Your task to perform on an android device: delete browsing data in the chrome app Image 0: 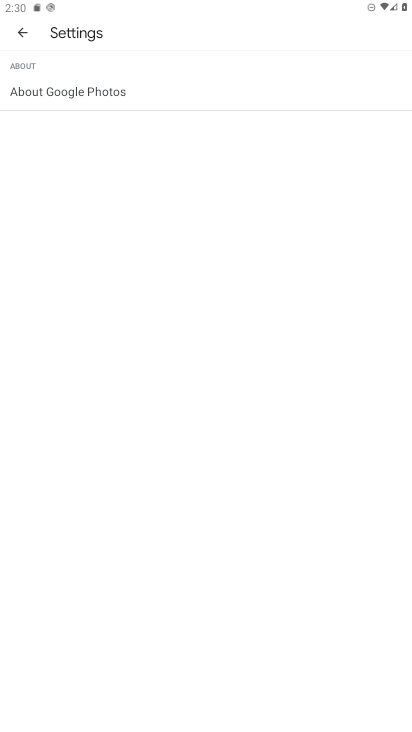
Step 0: press home button
Your task to perform on an android device: delete browsing data in the chrome app Image 1: 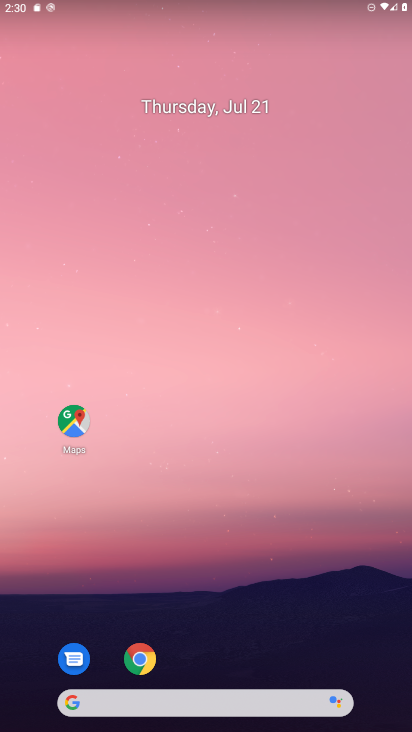
Step 1: click (135, 661)
Your task to perform on an android device: delete browsing data in the chrome app Image 2: 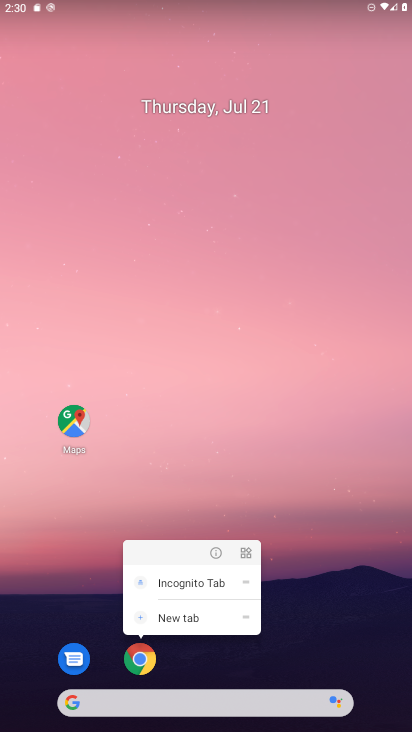
Step 2: click (133, 655)
Your task to perform on an android device: delete browsing data in the chrome app Image 3: 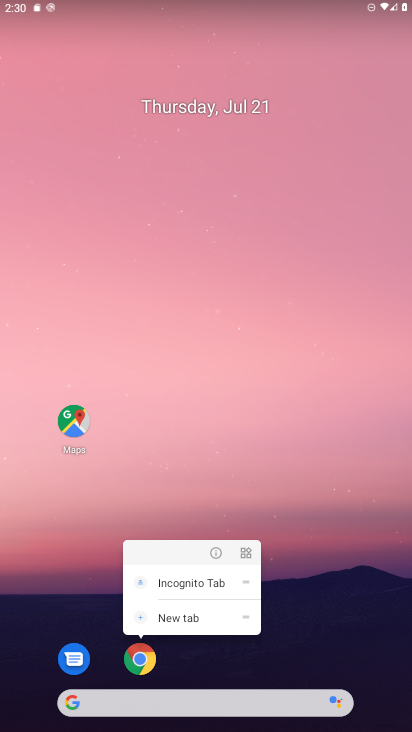
Step 3: click (133, 654)
Your task to perform on an android device: delete browsing data in the chrome app Image 4: 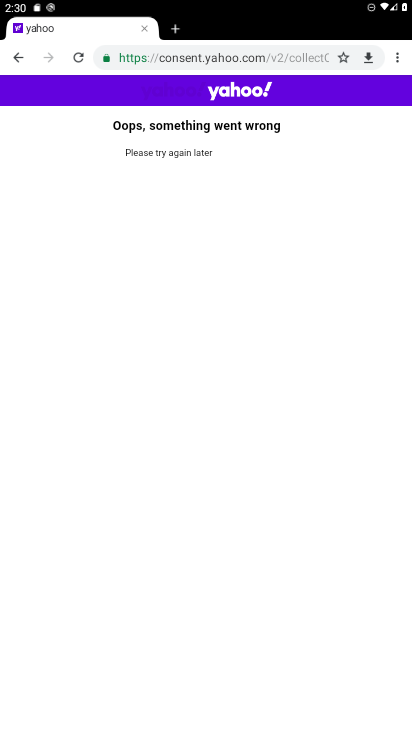
Step 4: click (391, 59)
Your task to perform on an android device: delete browsing data in the chrome app Image 5: 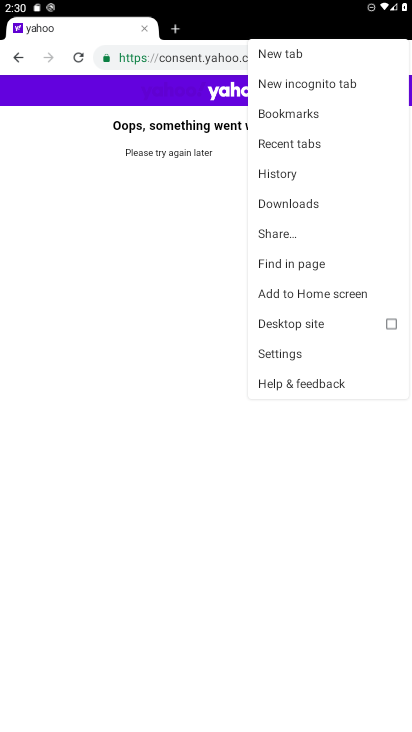
Step 5: click (277, 348)
Your task to perform on an android device: delete browsing data in the chrome app Image 6: 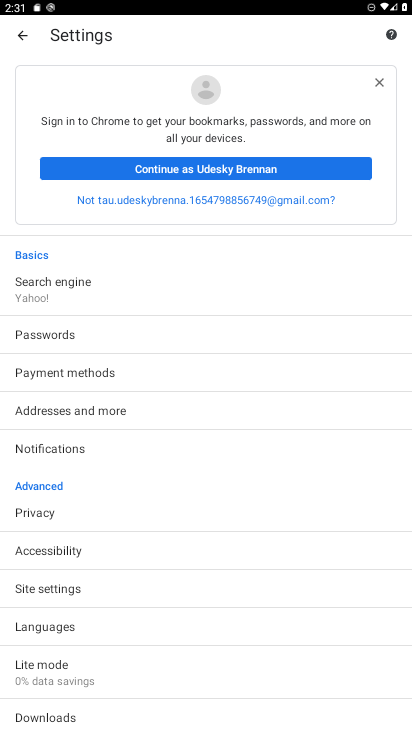
Step 6: click (77, 513)
Your task to perform on an android device: delete browsing data in the chrome app Image 7: 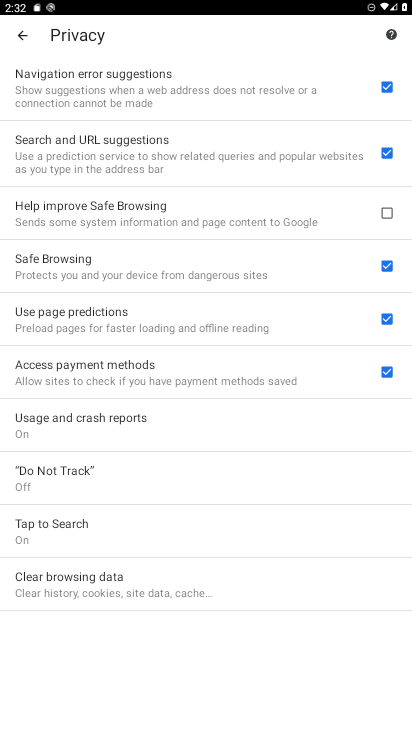
Step 7: click (110, 597)
Your task to perform on an android device: delete browsing data in the chrome app Image 8: 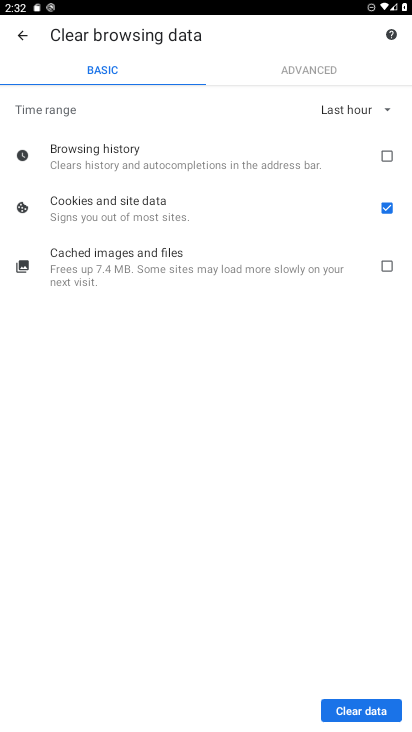
Step 8: click (382, 153)
Your task to perform on an android device: delete browsing data in the chrome app Image 9: 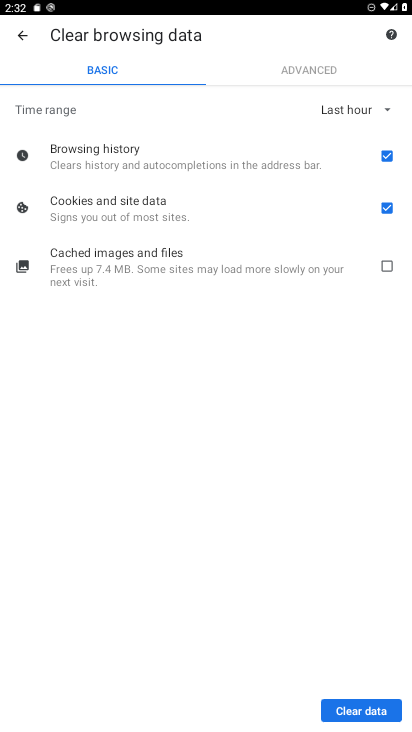
Step 9: click (362, 716)
Your task to perform on an android device: delete browsing data in the chrome app Image 10: 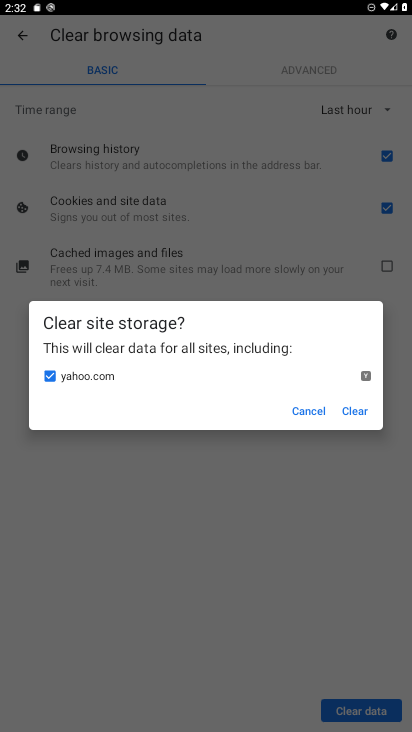
Step 10: click (347, 414)
Your task to perform on an android device: delete browsing data in the chrome app Image 11: 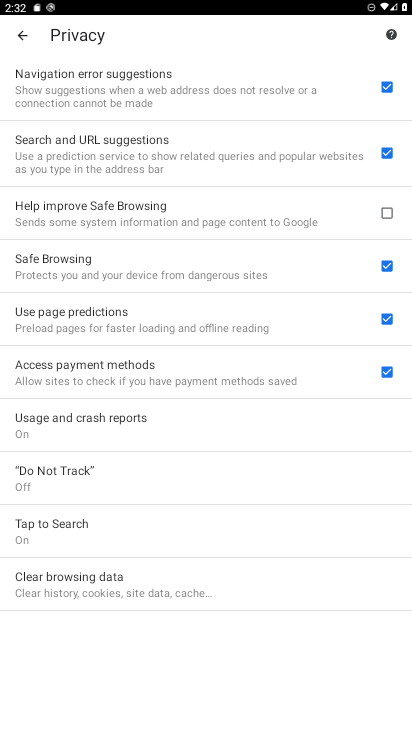
Step 11: task complete